Your task to perform on an android device: Open my contact list Image 0: 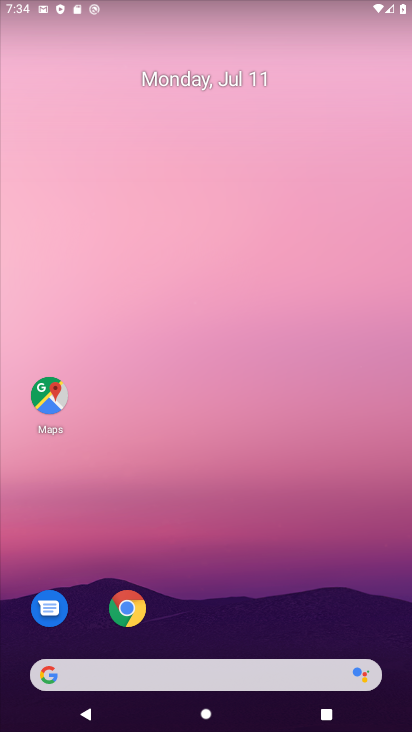
Step 0: drag from (264, 628) to (259, 317)
Your task to perform on an android device: Open my contact list Image 1: 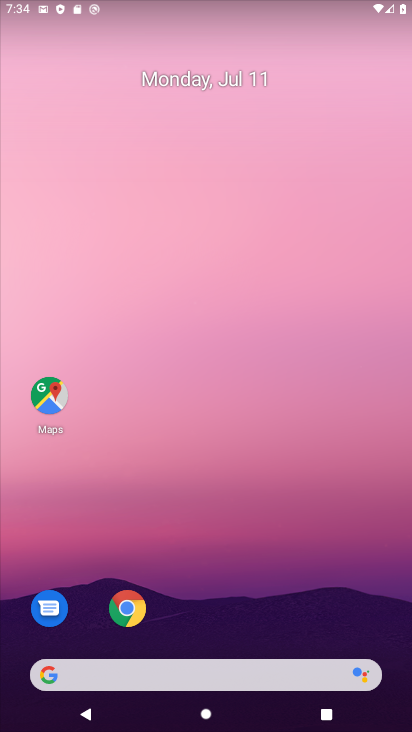
Step 1: drag from (235, 615) to (170, 86)
Your task to perform on an android device: Open my contact list Image 2: 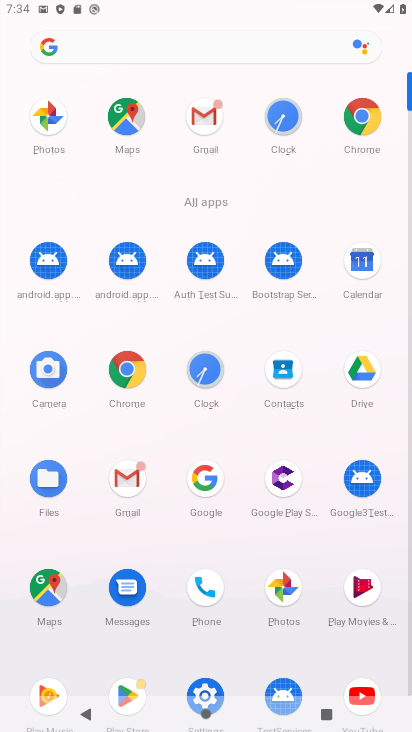
Step 2: click (267, 389)
Your task to perform on an android device: Open my contact list Image 3: 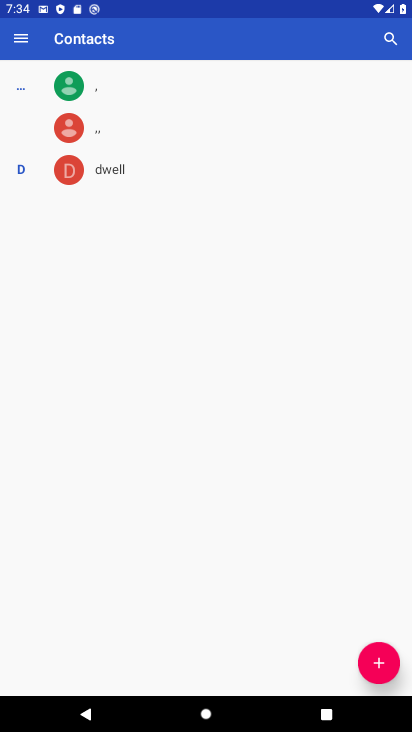
Step 3: task complete